Your task to perform on an android device: Open settings on Google Maps Image 0: 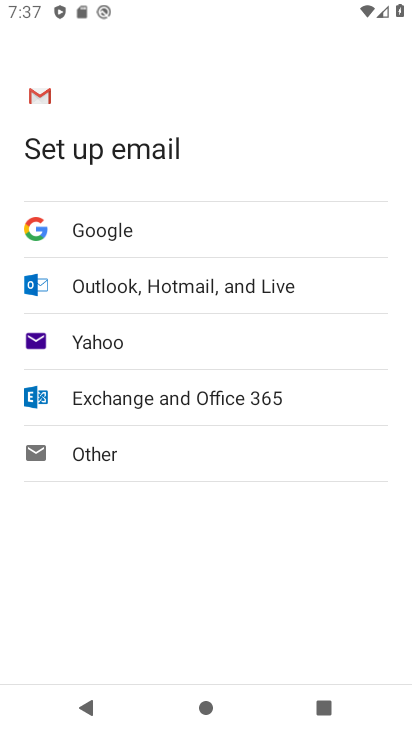
Step 0: press home button
Your task to perform on an android device: Open settings on Google Maps Image 1: 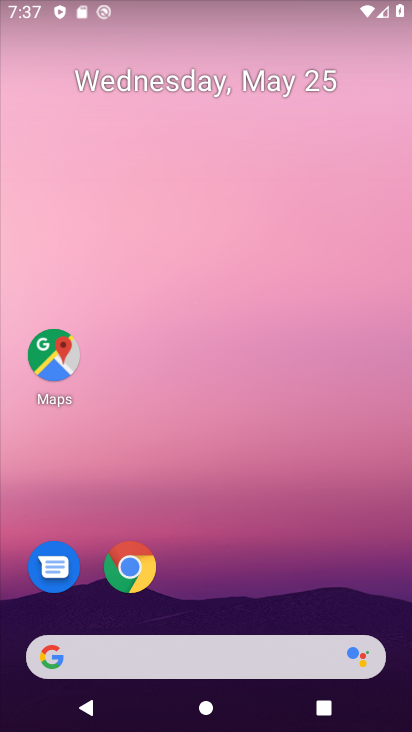
Step 1: click (52, 399)
Your task to perform on an android device: Open settings on Google Maps Image 2: 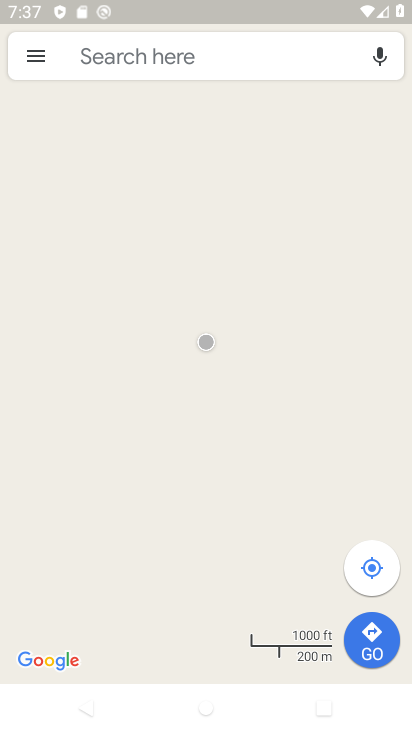
Step 2: click (35, 48)
Your task to perform on an android device: Open settings on Google Maps Image 3: 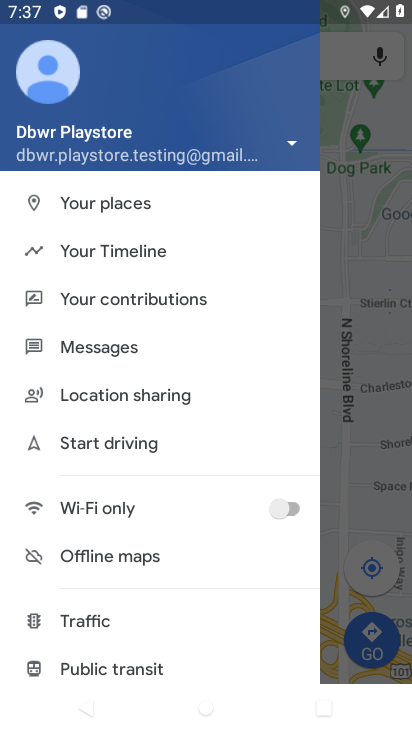
Step 3: drag from (133, 602) to (184, 347)
Your task to perform on an android device: Open settings on Google Maps Image 4: 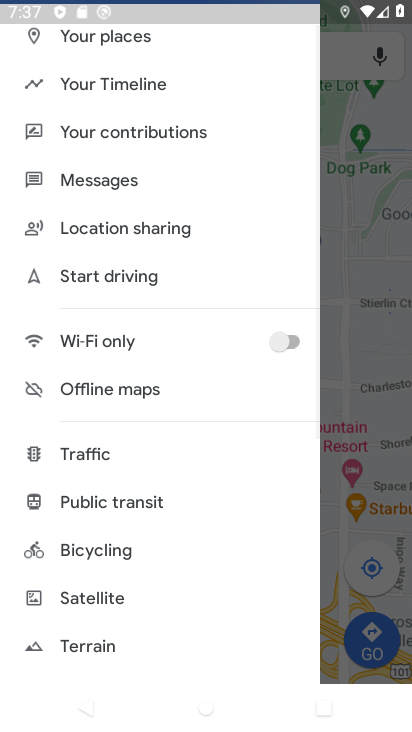
Step 4: drag from (122, 618) to (159, 259)
Your task to perform on an android device: Open settings on Google Maps Image 5: 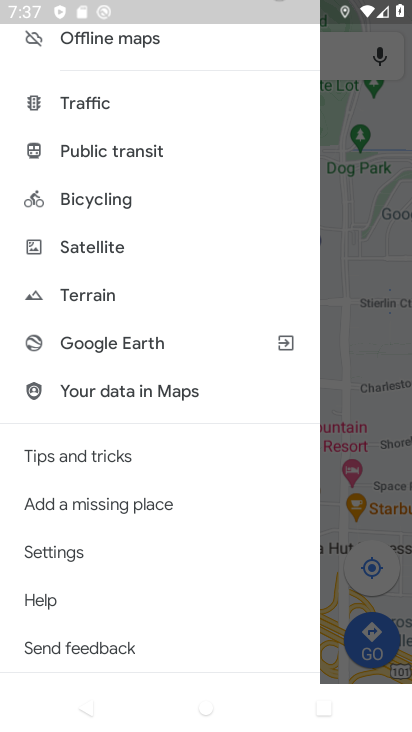
Step 5: click (89, 550)
Your task to perform on an android device: Open settings on Google Maps Image 6: 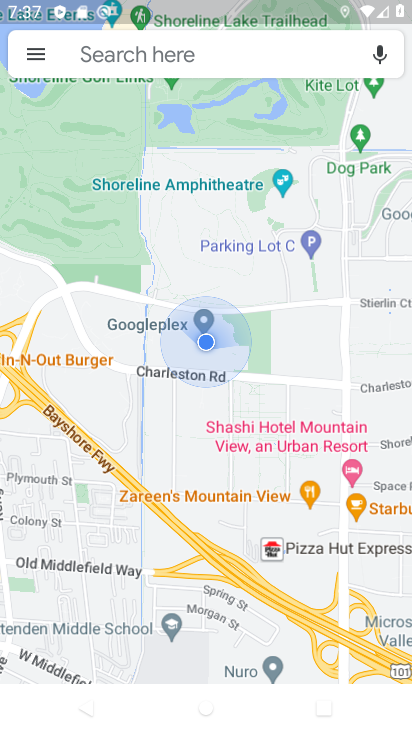
Step 6: task complete